Your task to perform on an android device: Go to Maps Image 0: 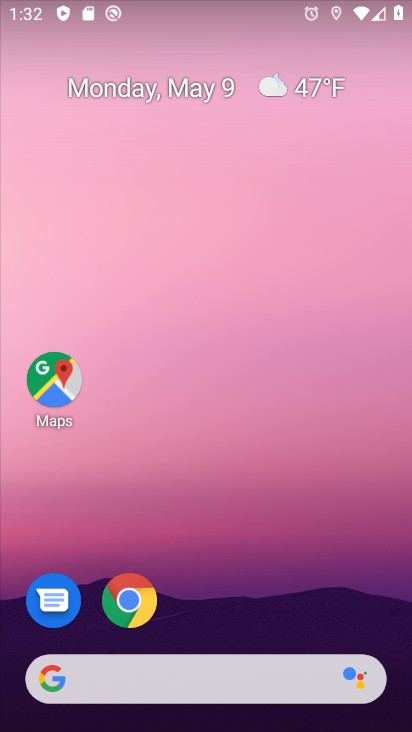
Step 0: drag from (185, 655) to (182, 185)
Your task to perform on an android device: Go to Maps Image 1: 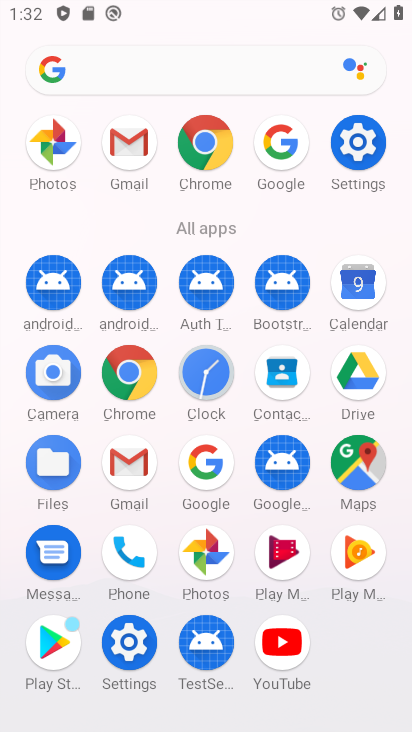
Step 1: click (351, 477)
Your task to perform on an android device: Go to Maps Image 2: 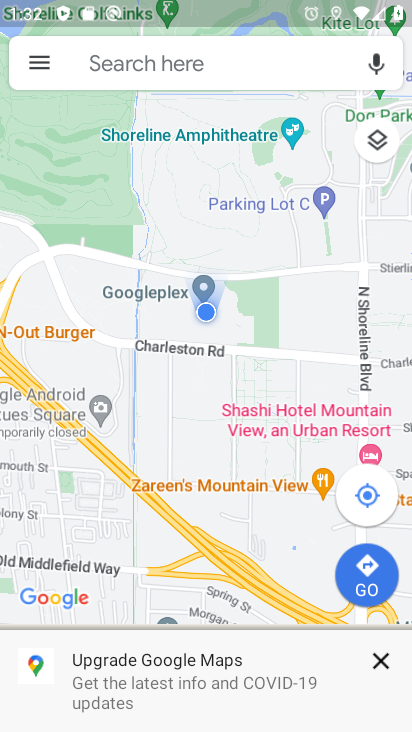
Step 2: task complete